Your task to perform on an android device: Is it going to rain today? Image 0: 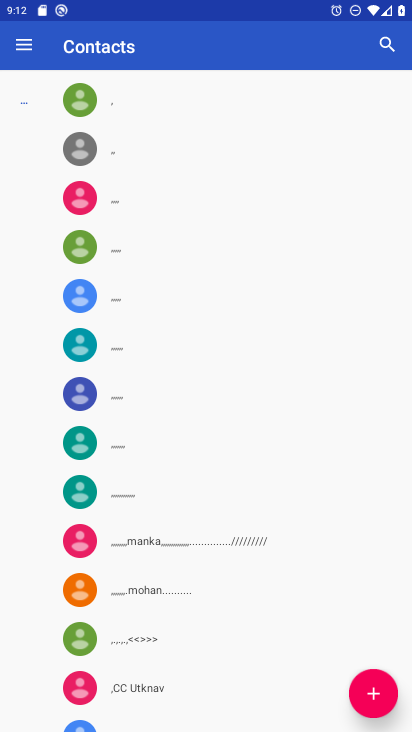
Step 0: press home button
Your task to perform on an android device: Is it going to rain today? Image 1: 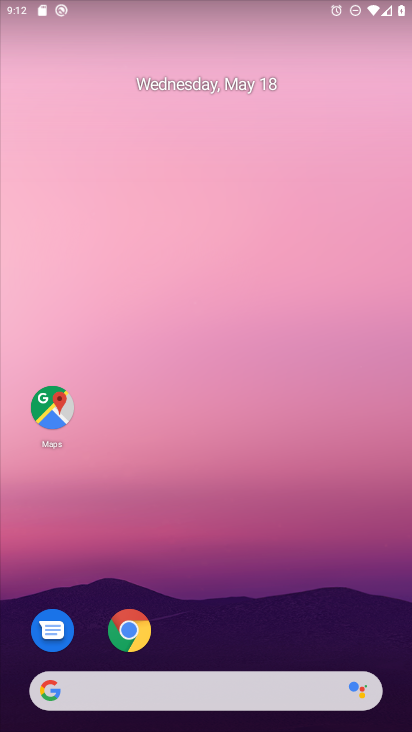
Step 1: click (230, 680)
Your task to perform on an android device: Is it going to rain today? Image 2: 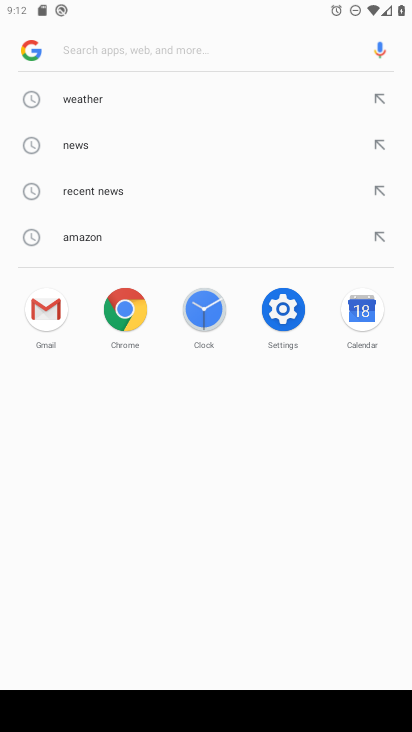
Step 2: click (117, 101)
Your task to perform on an android device: Is it going to rain today? Image 3: 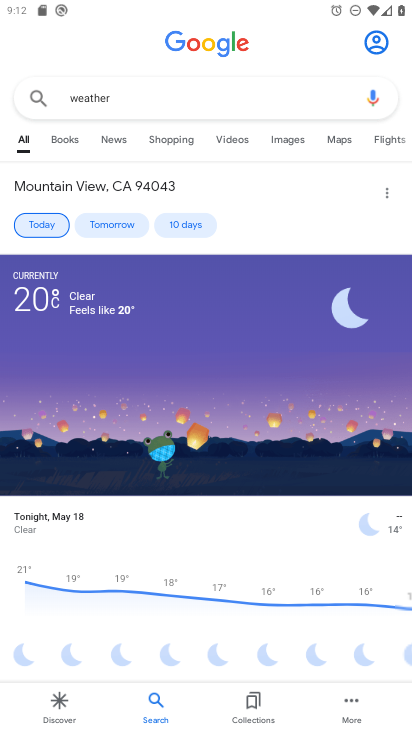
Step 3: click (43, 220)
Your task to perform on an android device: Is it going to rain today? Image 4: 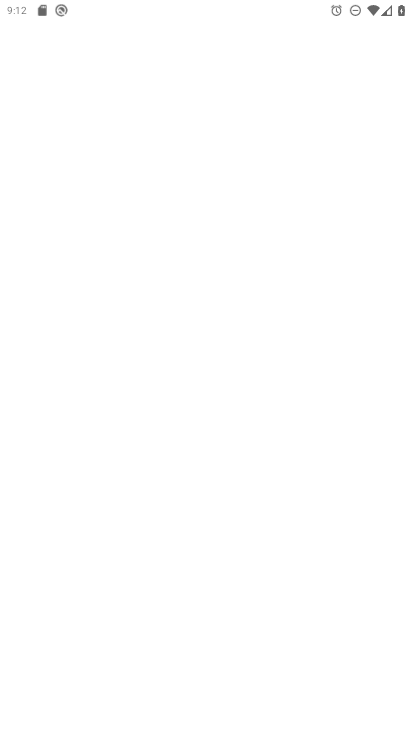
Step 4: task complete